Your task to perform on an android device: Check the weather Image 0: 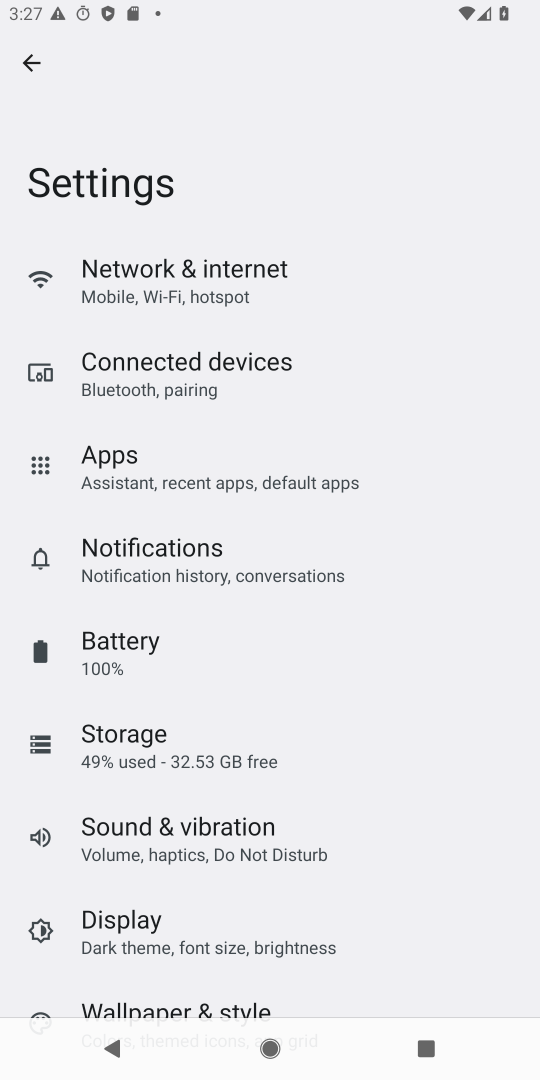
Step 0: press home button
Your task to perform on an android device: Check the weather Image 1: 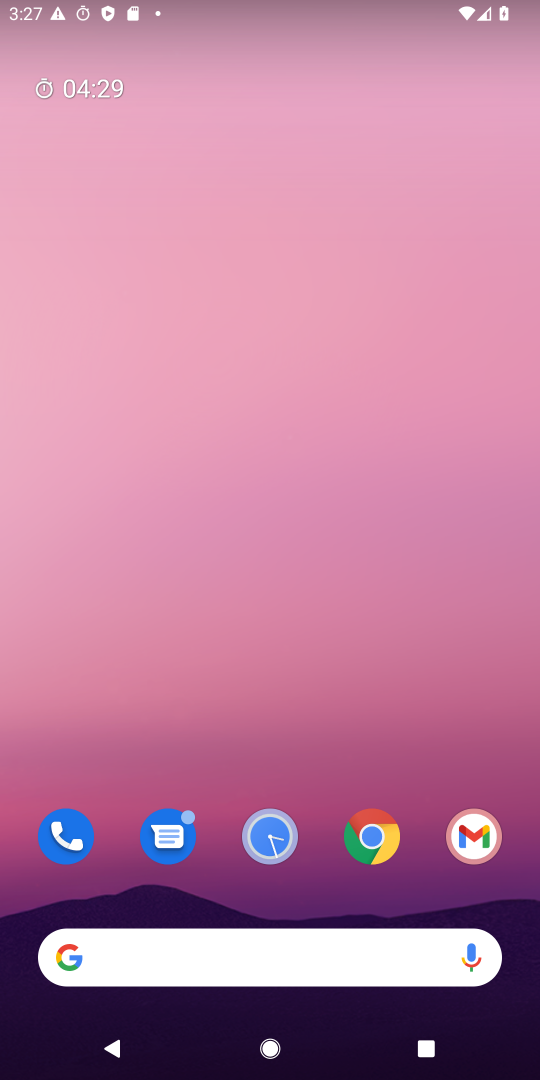
Step 1: drag from (228, 881) to (253, 202)
Your task to perform on an android device: Check the weather Image 2: 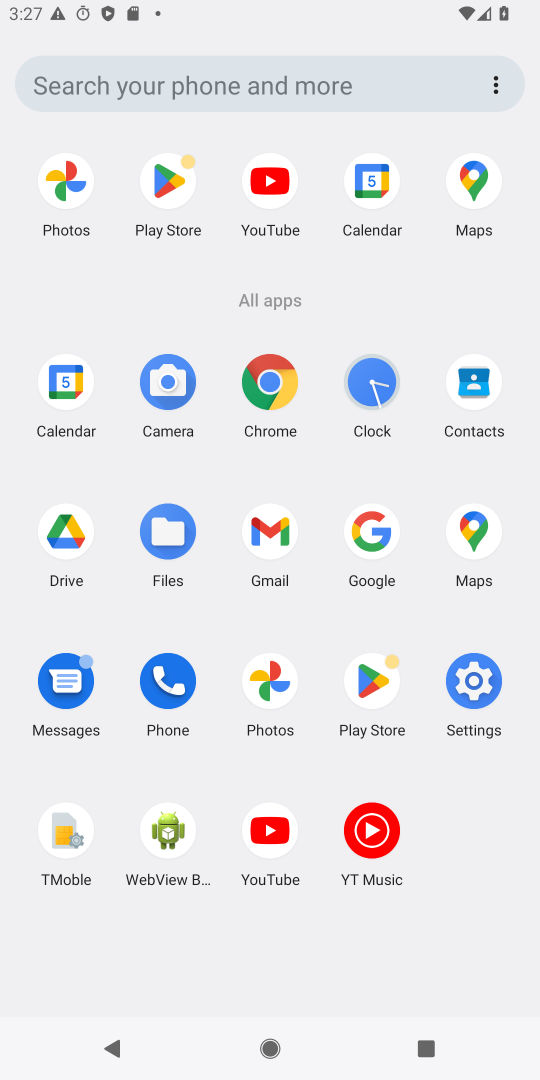
Step 2: click (256, 91)
Your task to perform on an android device: Check the weather Image 3: 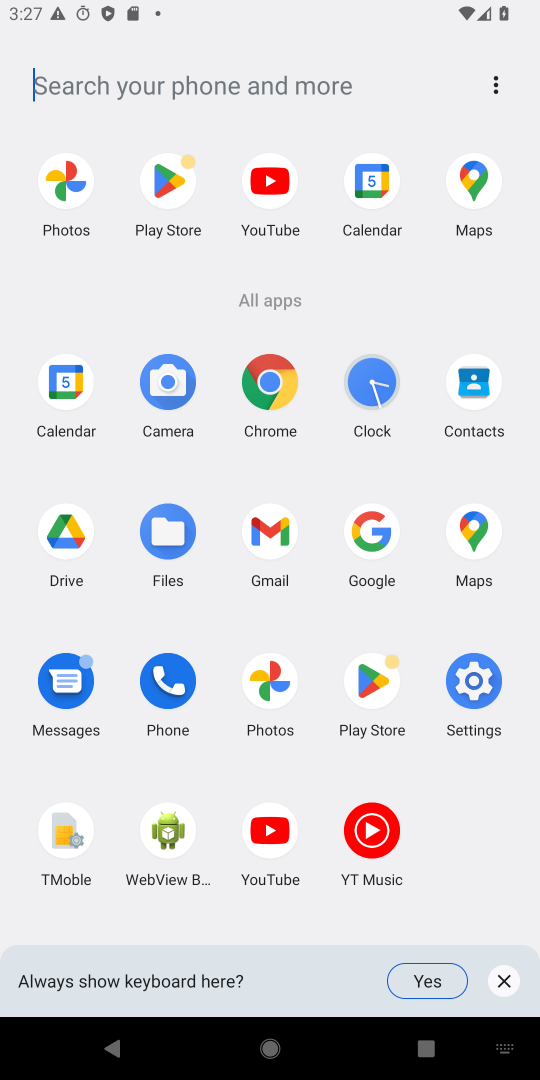
Step 3: type "weather"
Your task to perform on an android device: Check the weather Image 4: 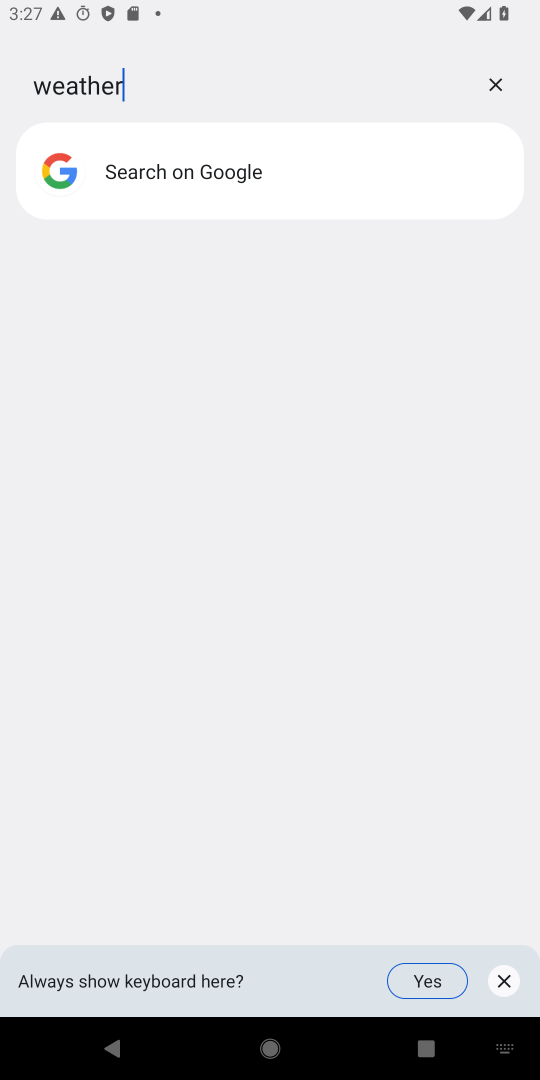
Step 4: click (204, 189)
Your task to perform on an android device: Check the weather Image 5: 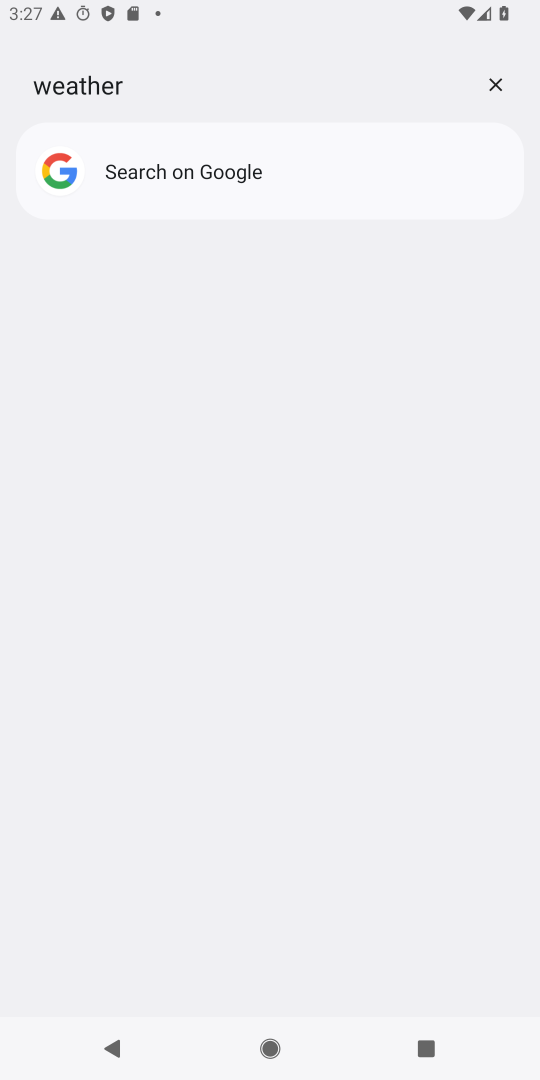
Step 5: click (206, 174)
Your task to perform on an android device: Check the weather Image 6: 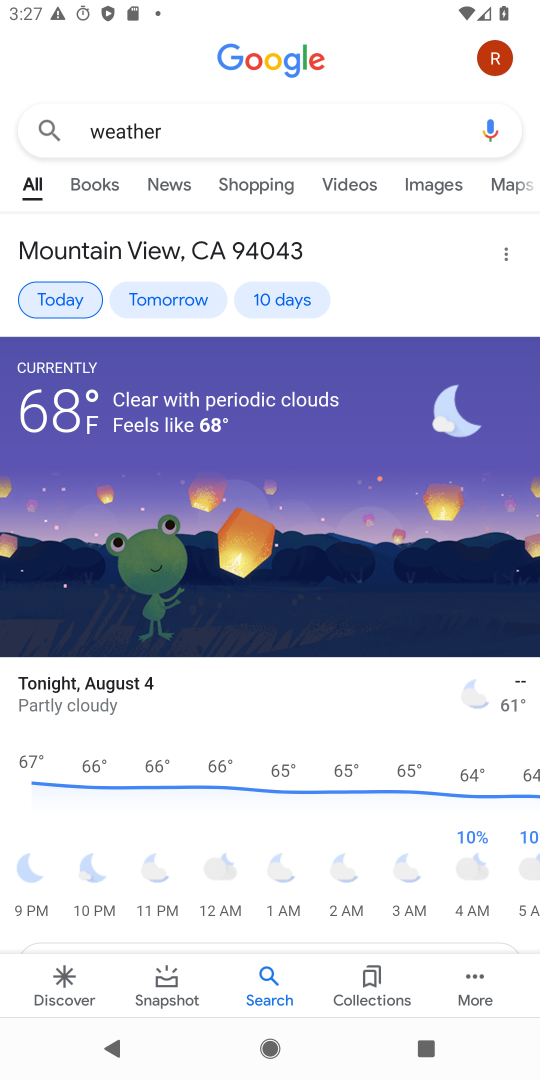
Step 6: task complete